Your task to perform on an android device: What's the weather today? Image 0: 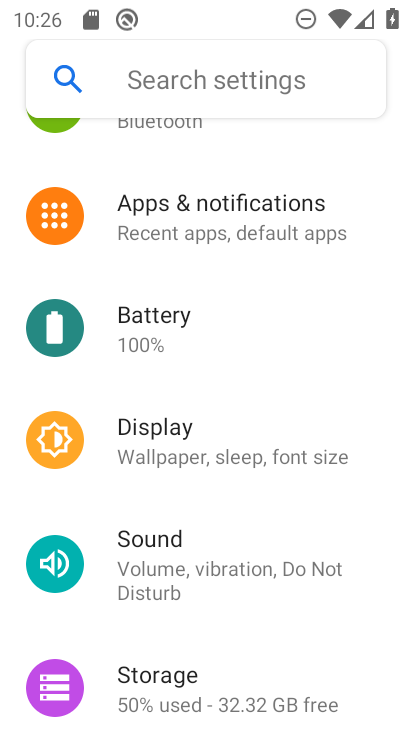
Step 0: press home button
Your task to perform on an android device: What's the weather today? Image 1: 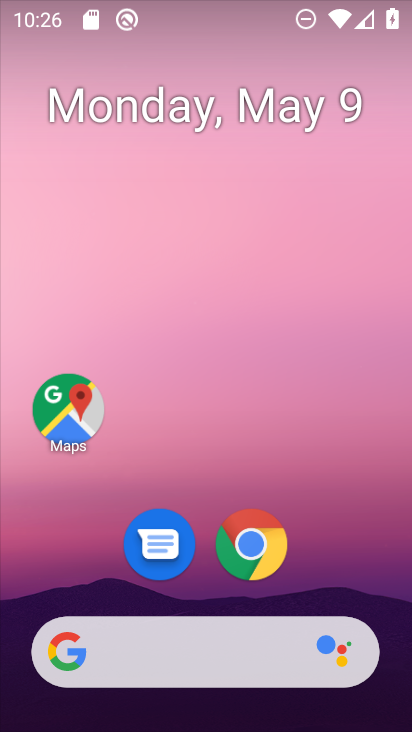
Step 1: click (164, 627)
Your task to perform on an android device: What's the weather today? Image 2: 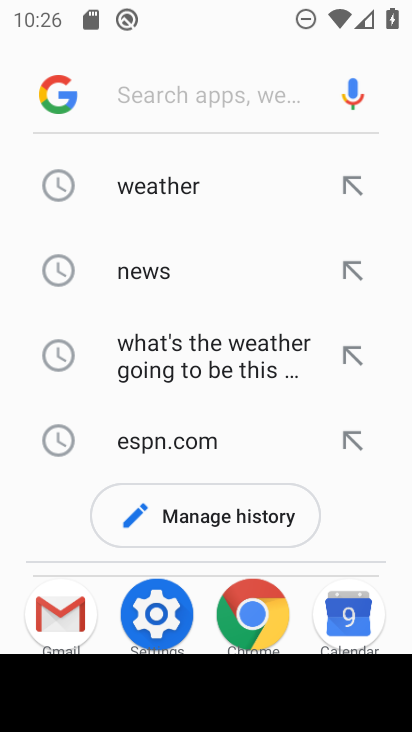
Step 2: click (160, 182)
Your task to perform on an android device: What's the weather today? Image 3: 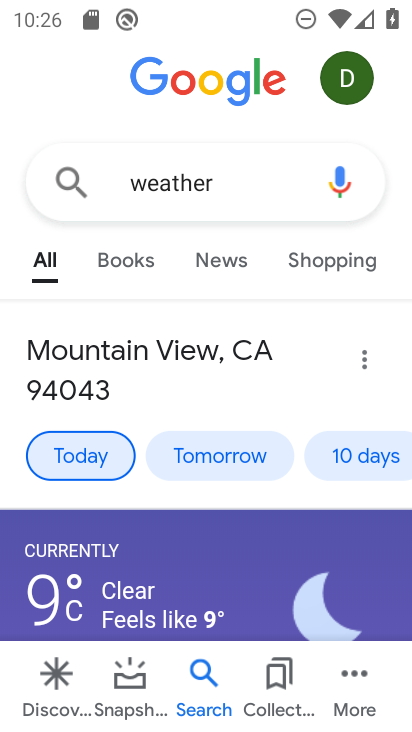
Step 3: task complete